Your task to perform on an android device: What's the weather? Image 0: 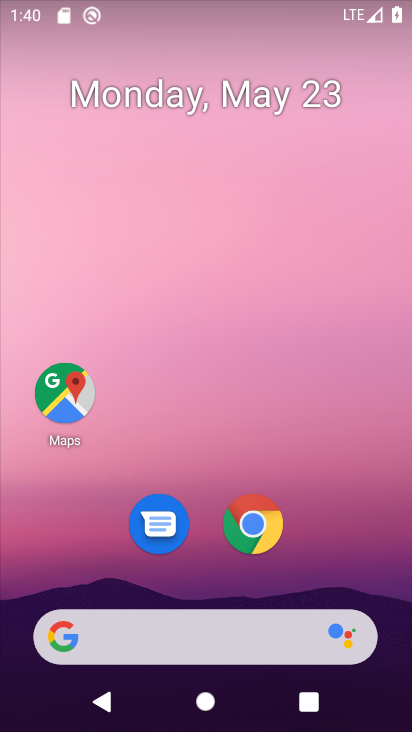
Step 0: click (148, 639)
Your task to perform on an android device: What's the weather? Image 1: 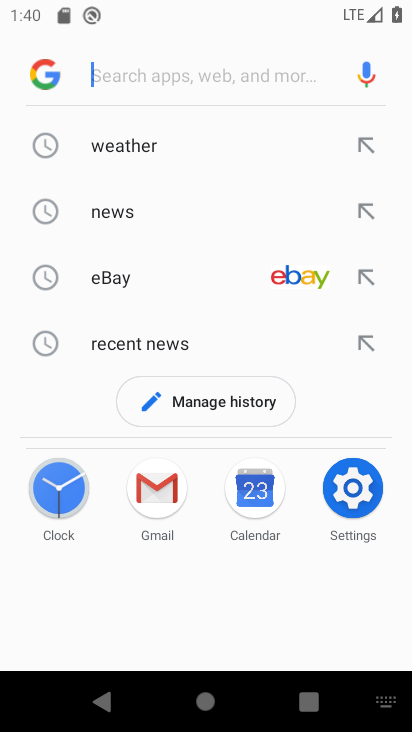
Step 1: click (152, 149)
Your task to perform on an android device: What's the weather? Image 2: 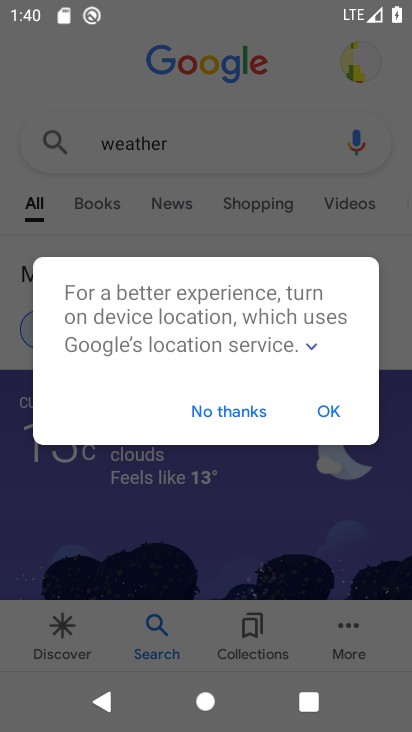
Step 2: click (328, 403)
Your task to perform on an android device: What's the weather? Image 3: 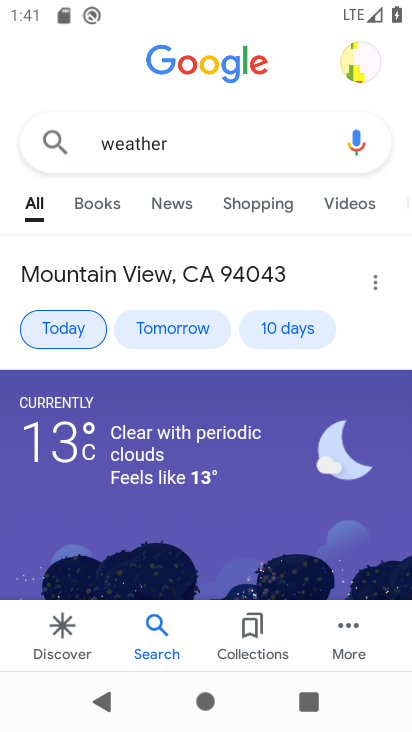
Step 3: click (86, 324)
Your task to perform on an android device: What's the weather? Image 4: 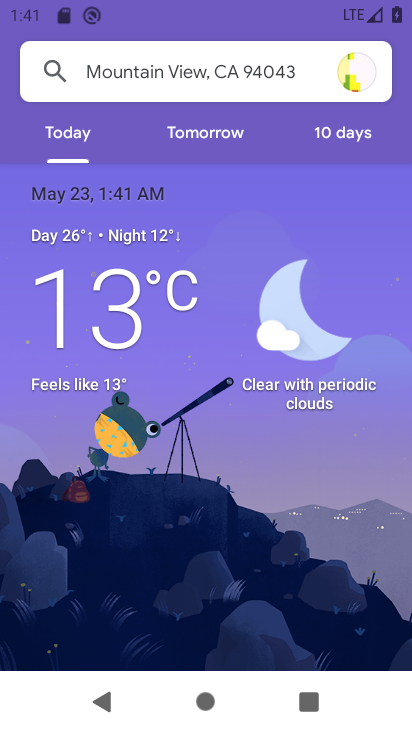
Step 4: task complete